Your task to perform on an android device: Open the Play Movies app and select the watchlist tab. Image 0: 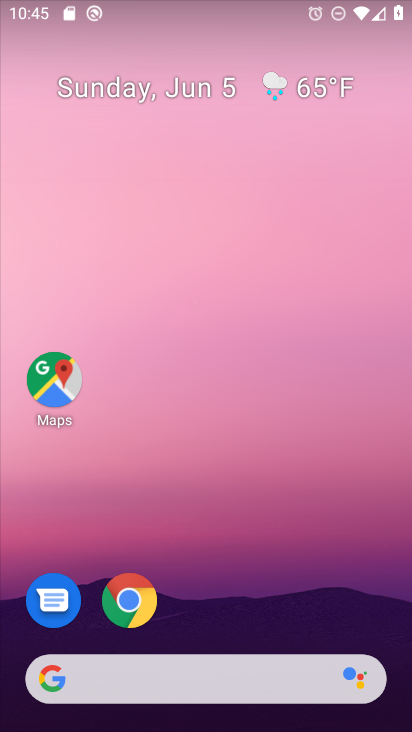
Step 0: drag from (412, 614) to (287, 64)
Your task to perform on an android device: Open the Play Movies app and select the watchlist tab. Image 1: 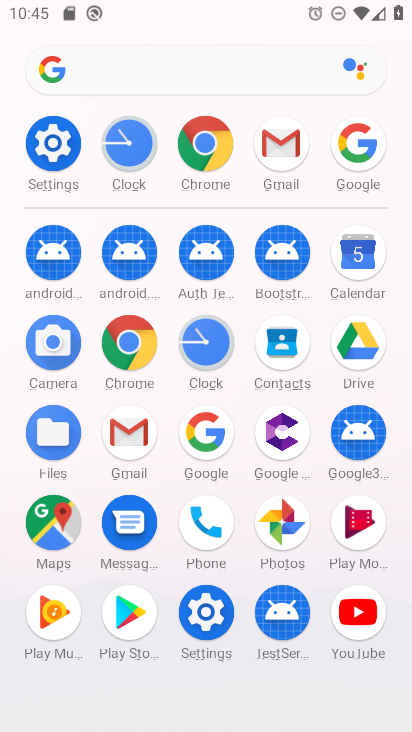
Step 1: click (340, 526)
Your task to perform on an android device: Open the Play Movies app and select the watchlist tab. Image 2: 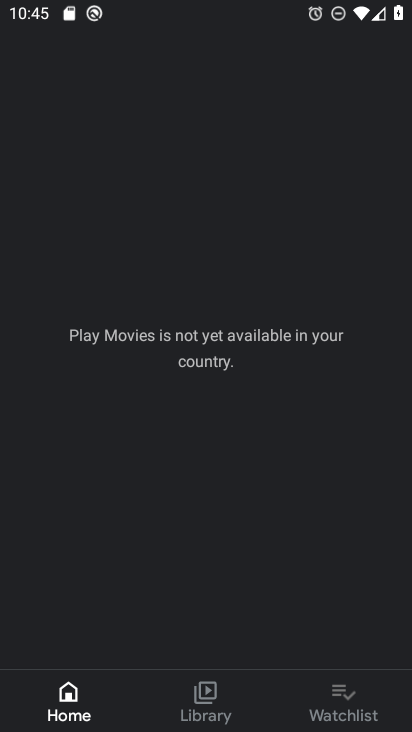
Step 2: click (341, 701)
Your task to perform on an android device: Open the Play Movies app and select the watchlist tab. Image 3: 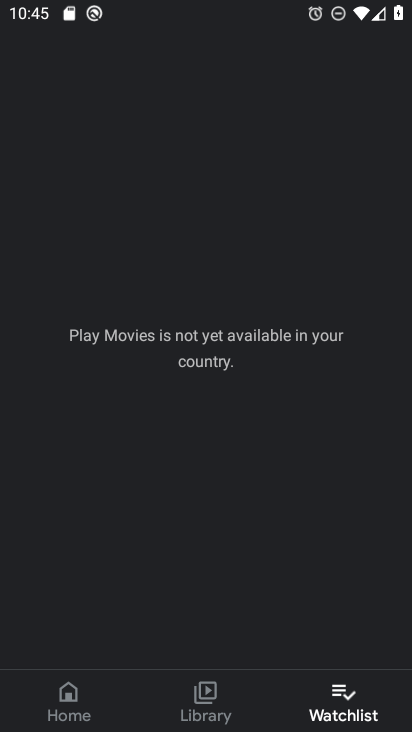
Step 3: task complete